Your task to perform on an android device: Toggle the flashlight Image 0: 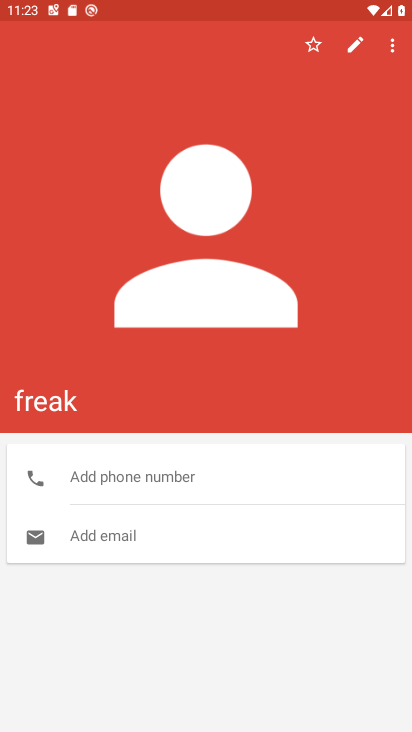
Step 0: press home button
Your task to perform on an android device: Toggle the flashlight Image 1: 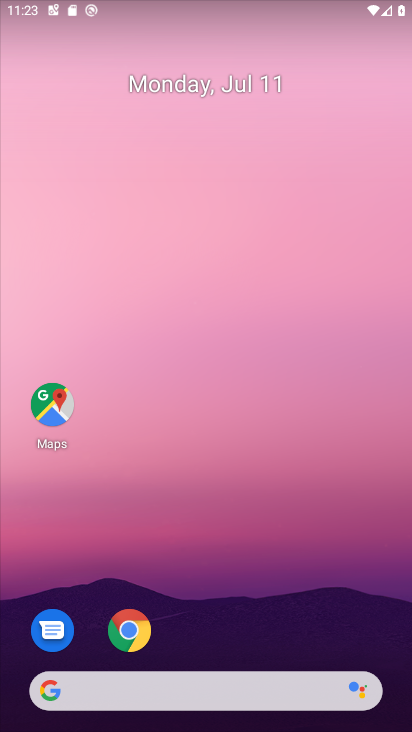
Step 1: drag from (284, 563) to (288, 9)
Your task to perform on an android device: Toggle the flashlight Image 2: 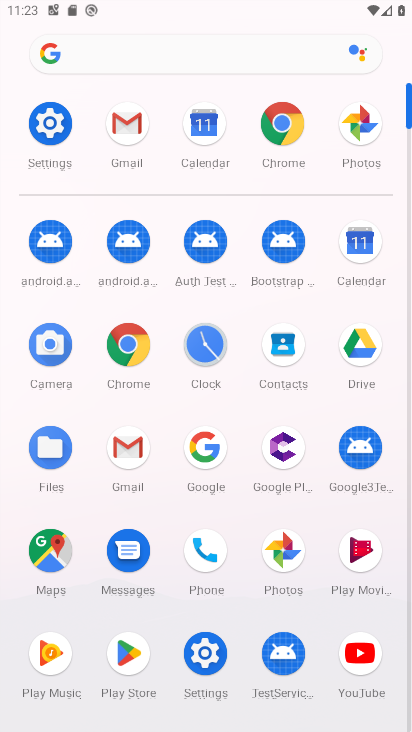
Step 2: click (209, 655)
Your task to perform on an android device: Toggle the flashlight Image 3: 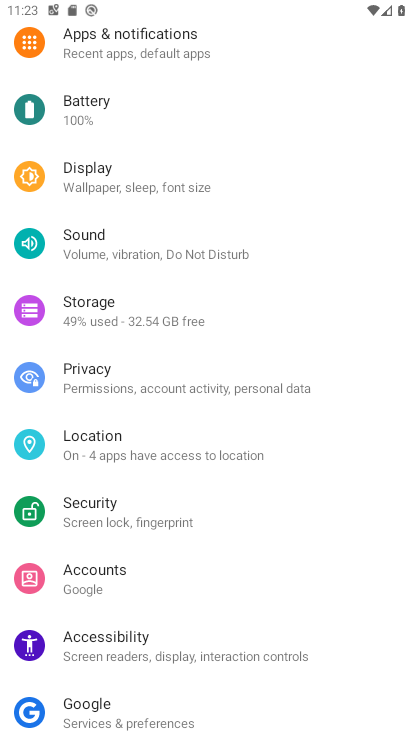
Step 3: drag from (206, 152) to (154, 689)
Your task to perform on an android device: Toggle the flashlight Image 4: 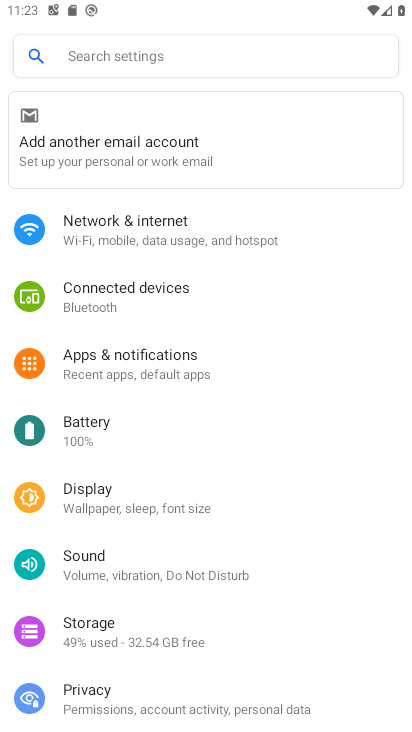
Step 4: click (245, 38)
Your task to perform on an android device: Toggle the flashlight Image 5: 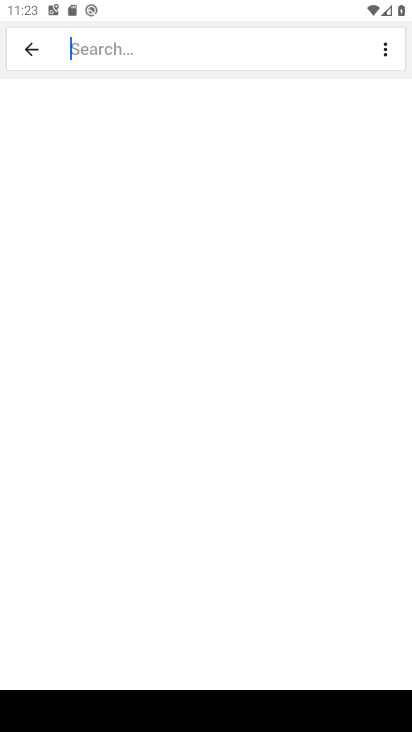
Step 5: type "flashlight"
Your task to perform on an android device: Toggle the flashlight Image 6: 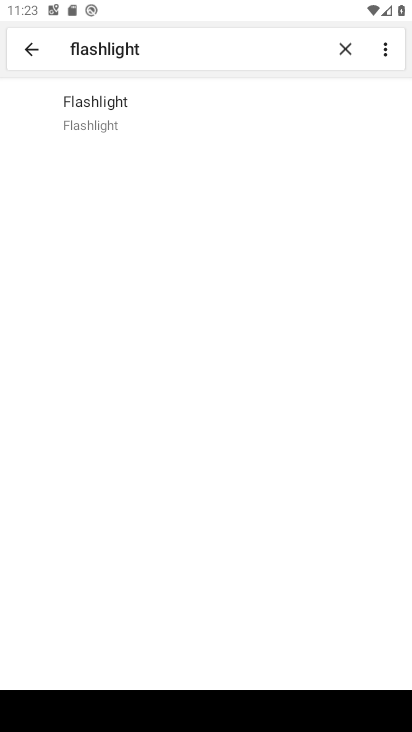
Step 6: click (122, 132)
Your task to perform on an android device: Toggle the flashlight Image 7: 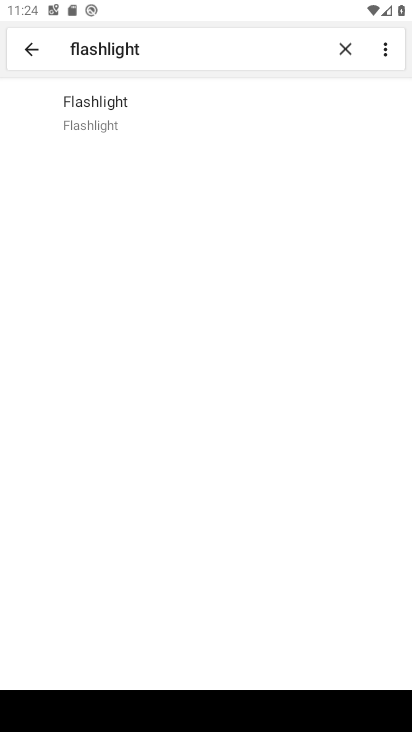
Step 7: click (120, 130)
Your task to perform on an android device: Toggle the flashlight Image 8: 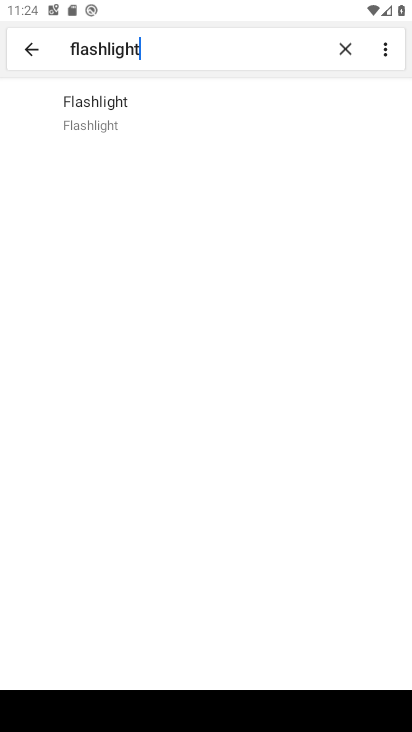
Step 8: task complete